Your task to perform on an android device: Turn on the flashlight Image 0: 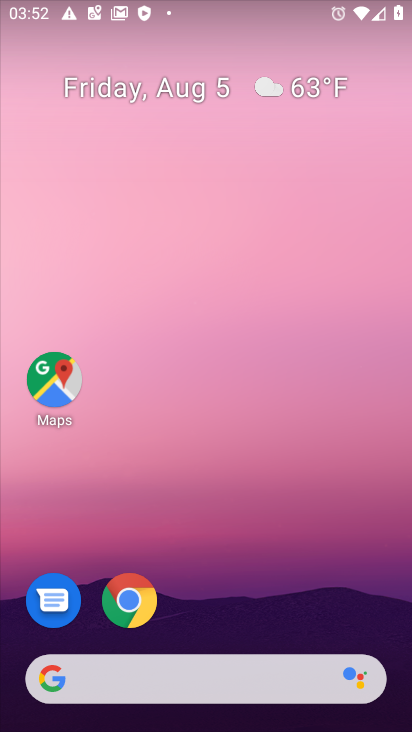
Step 0: drag from (225, 681) to (303, 133)
Your task to perform on an android device: Turn on the flashlight Image 1: 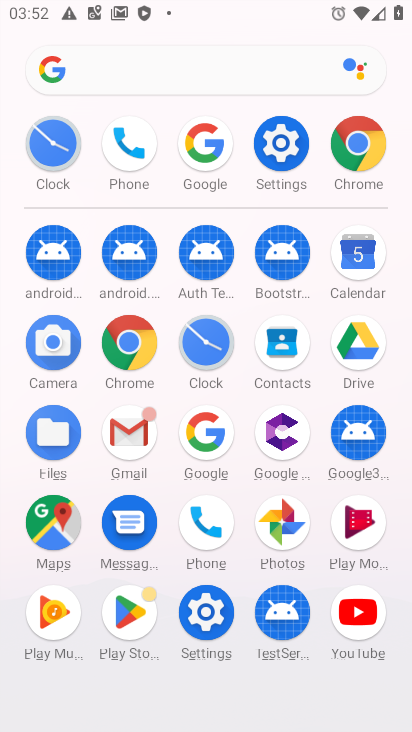
Step 1: click (281, 141)
Your task to perform on an android device: Turn on the flashlight Image 2: 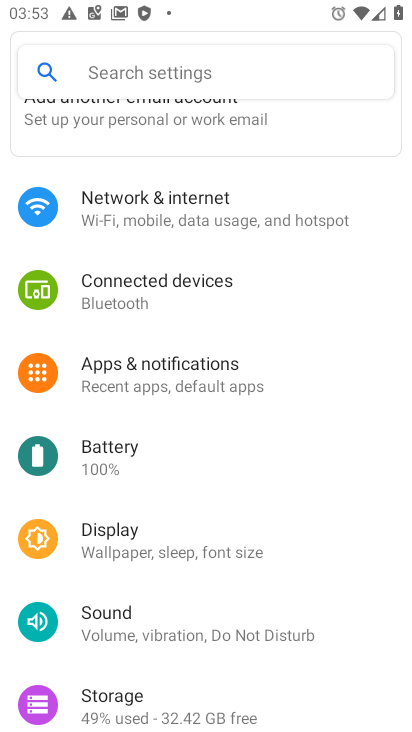
Step 2: drag from (162, 454) to (228, 366)
Your task to perform on an android device: Turn on the flashlight Image 3: 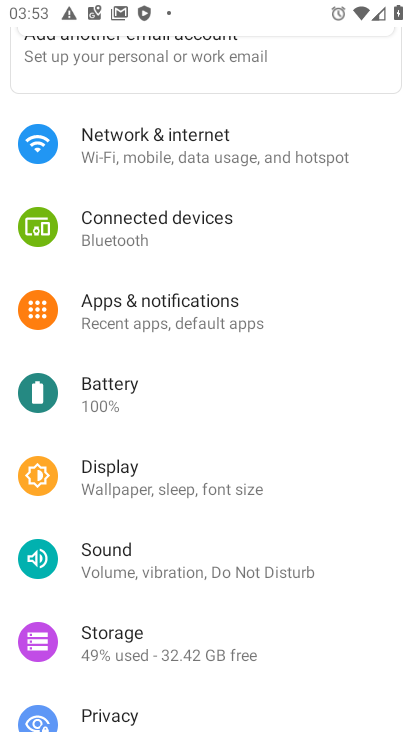
Step 3: drag from (175, 548) to (235, 460)
Your task to perform on an android device: Turn on the flashlight Image 4: 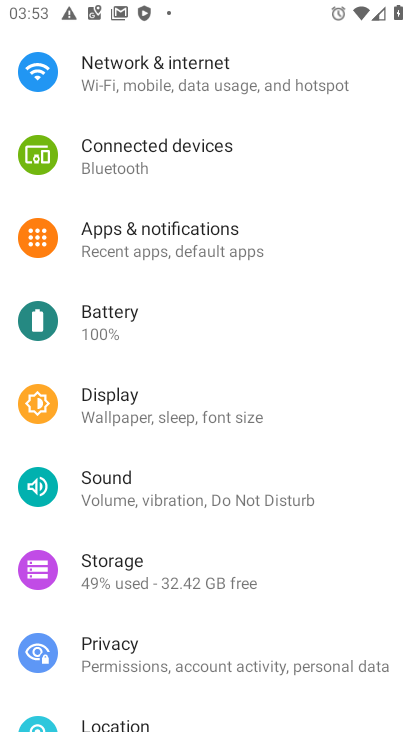
Step 4: click (200, 429)
Your task to perform on an android device: Turn on the flashlight Image 5: 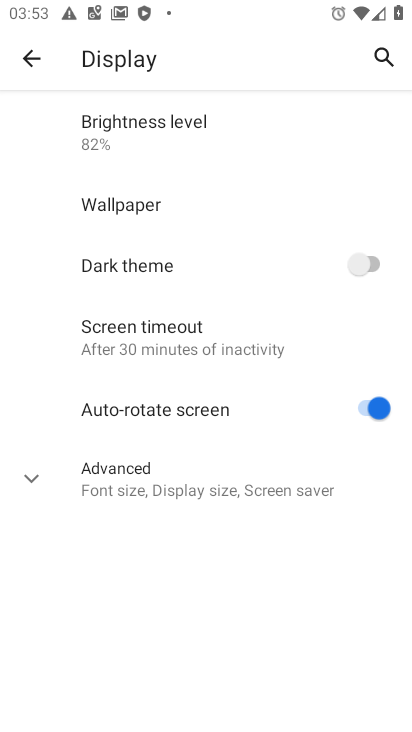
Step 5: click (148, 492)
Your task to perform on an android device: Turn on the flashlight Image 6: 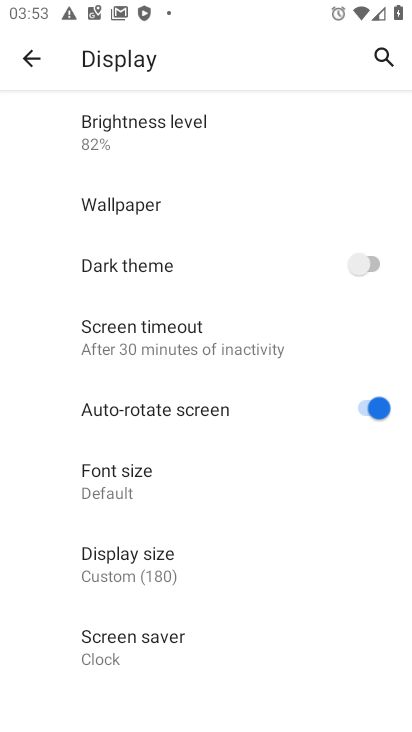
Step 6: task complete